Your task to perform on an android device: Search for sushi restaurants on Maps Image 0: 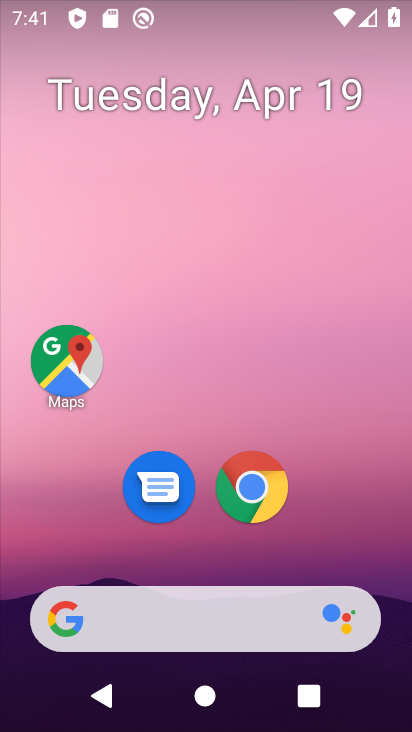
Step 0: click (42, 374)
Your task to perform on an android device: Search for sushi restaurants on Maps Image 1: 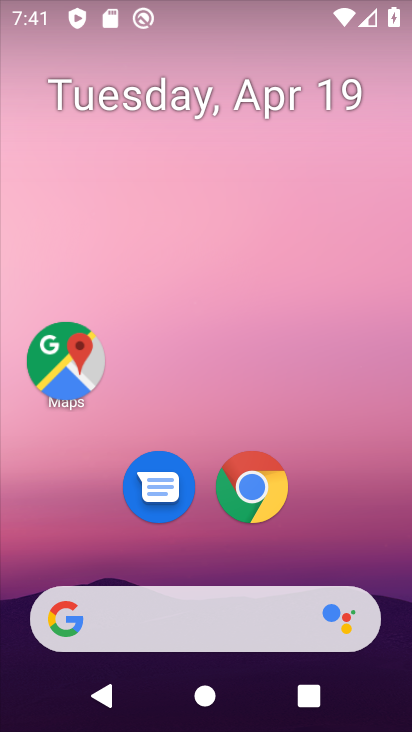
Step 1: click (52, 379)
Your task to perform on an android device: Search for sushi restaurants on Maps Image 2: 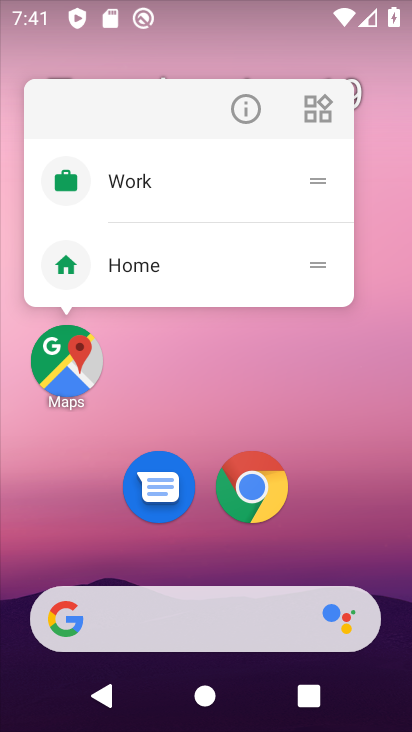
Step 2: click (56, 360)
Your task to perform on an android device: Search for sushi restaurants on Maps Image 3: 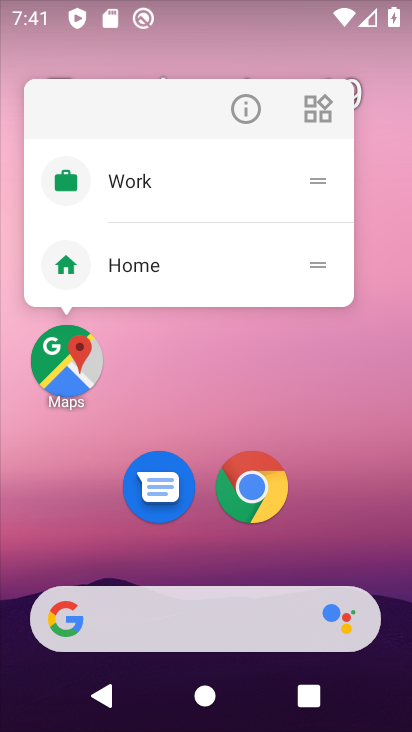
Step 3: click (60, 356)
Your task to perform on an android device: Search for sushi restaurants on Maps Image 4: 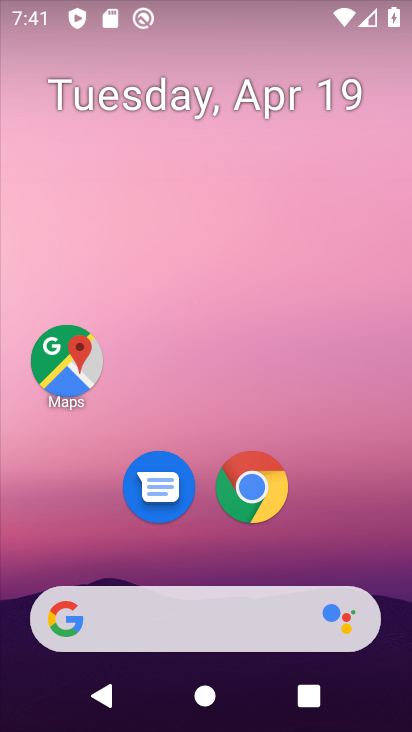
Step 4: drag from (263, 502) to (180, 9)
Your task to perform on an android device: Search for sushi restaurants on Maps Image 5: 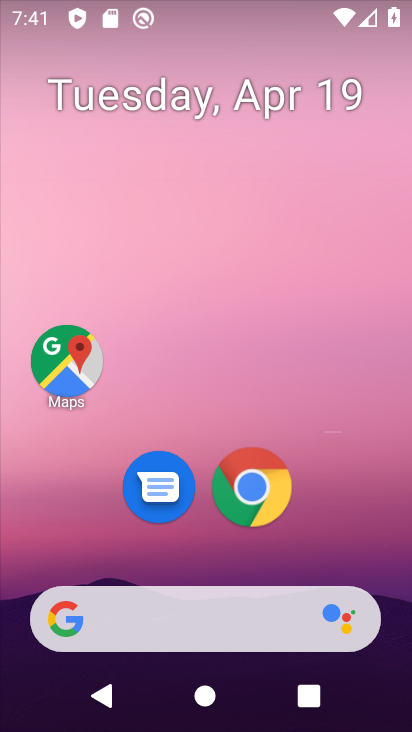
Step 5: click (150, 79)
Your task to perform on an android device: Search for sushi restaurants on Maps Image 6: 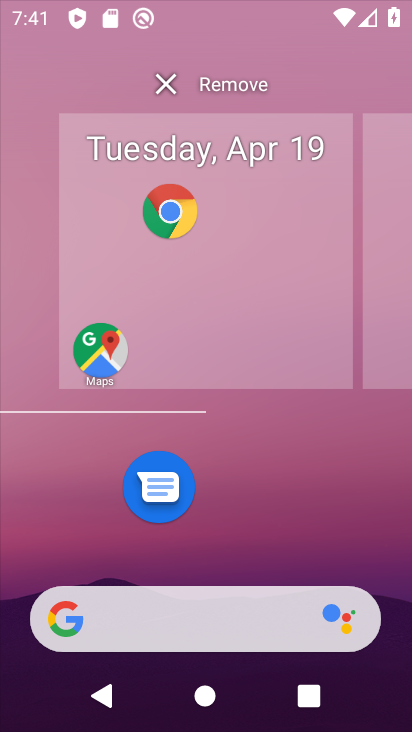
Step 6: drag from (230, 302) to (173, 32)
Your task to perform on an android device: Search for sushi restaurants on Maps Image 7: 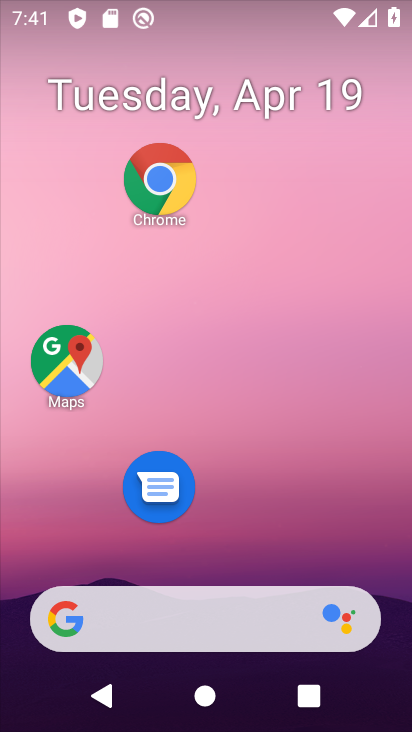
Step 7: drag from (233, 417) to (175, 45)
Your task to perform on an android device: Search for sushi restaurants on Maps Image 8: 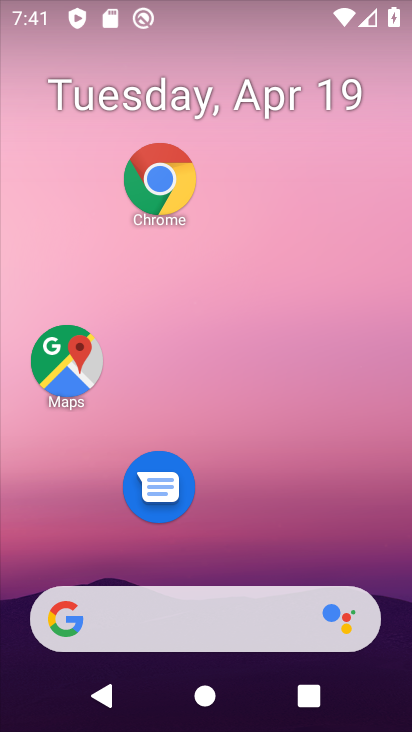
Step 8: click (89, 39)
Your task to perform on an android device: Search for sushi restaurants on Maps Image 9: 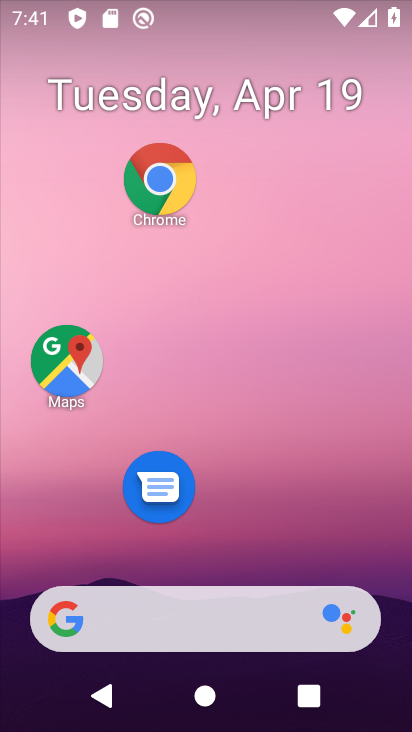
Step 9: drag from (208, 362) to (179, 220)
Your task to perform on an android device: Search for sushi restaurants on Maps Image 10: 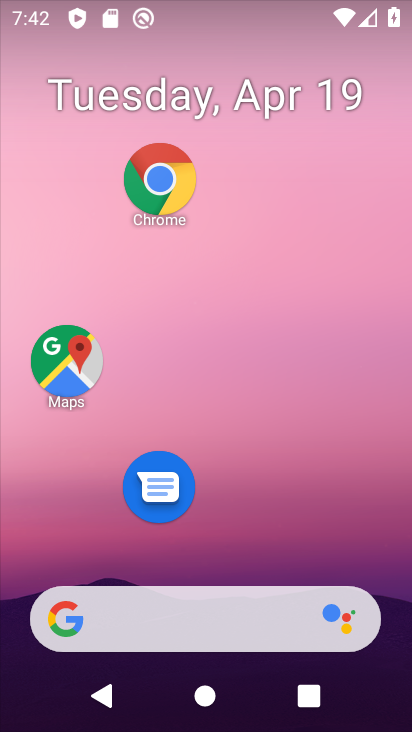
Step 10: click (201, 1)
Your task to perform on an android device: Search for sushi restaurants on Maps Image 11: 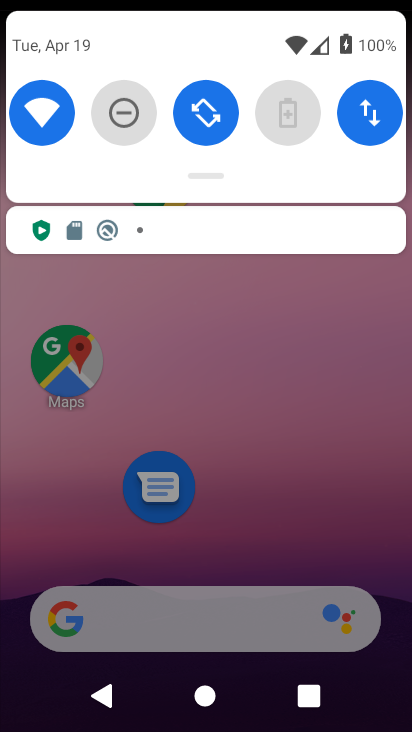
Step 11: drag from (321, 545) to (212, 226)
Your task to perform on an android device: Search for sushi restaurants on Maps Image 12: 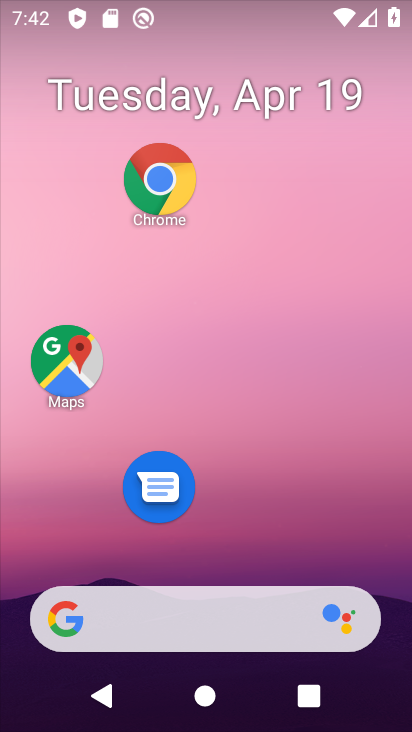
Step 12: drag from (248, 473) to (111, 37)
Your task to perform on an android device: Search for sushi restaurants on Maps Image 13: 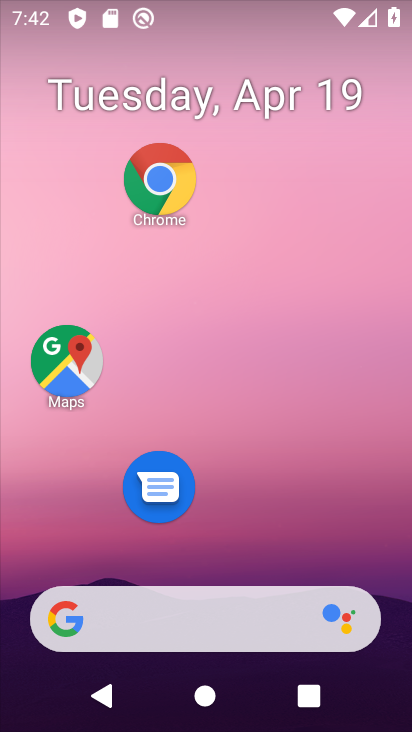
Step 13: drag from (180, 187) to (218, 203)
Your task to perform on an android device: Search for sushi restaurants on Maps Image 14: 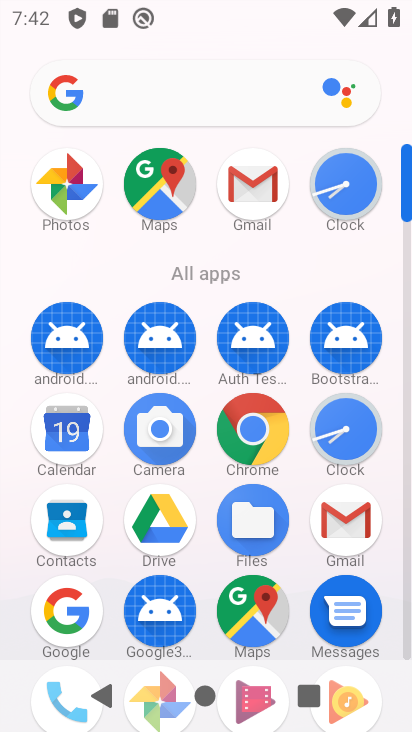
Step 14: click (167, 183)
Your task to perform on an android device: Search for sushi restaurants on Maps Image 15: 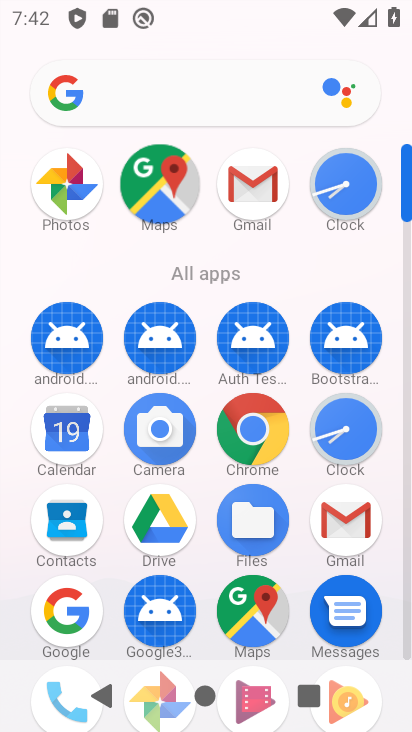
Step 15: click (167, 183)
Your task to perform on an android device: Search for sushi restaurants on Maps Image 16: 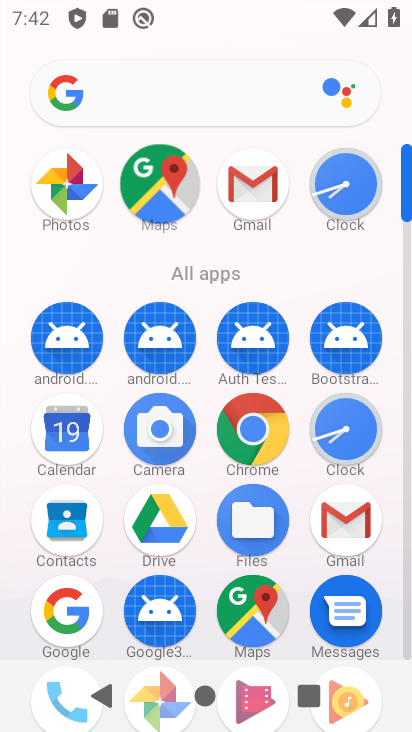
Step 16: click (167, 183)
Your task to perform on an android device: Search for sushi restaurants on Maps Image 17: 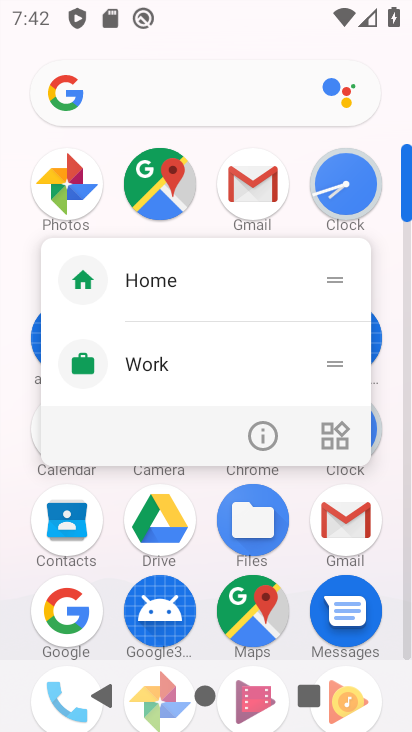
Step 17: click (167, 183)
Your task to perform on an android device: Search for sushi restaurants on Maps Image 18: 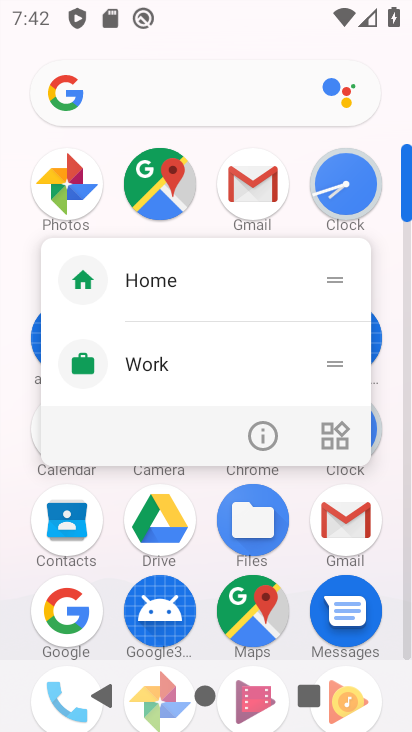
Step 18: click (167, 183)
Your task to perform on an android device: Search for sushi restaurants on Maps Image 19: 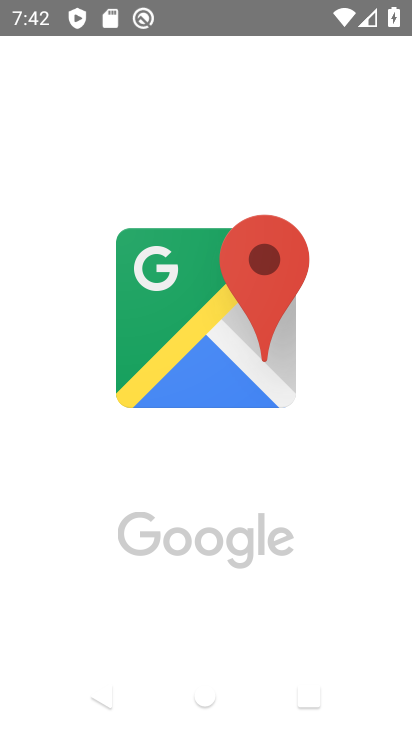
Step 19: click (166, 182)
Your task to perform on an android device: Search for sushi restaurants on Maps Image 20: 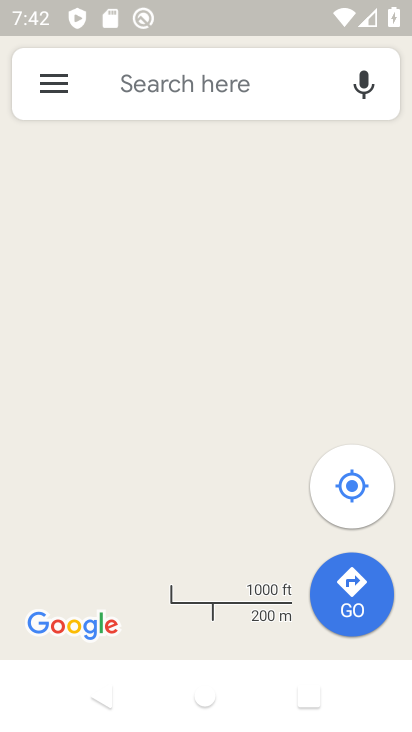
Step 20: click (138, 87)
Your task to perform on an android device: Search for sushi restaurants on Maps Image 21: 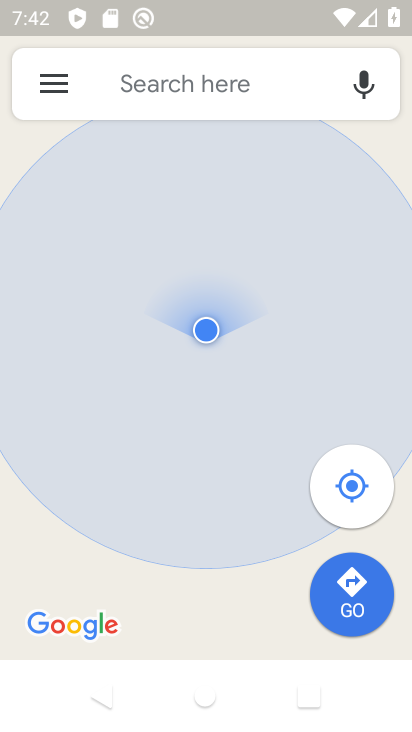
Step 21: click (126, 75)
Your task to perform on an android device: Search for sushi restaurants on Maps Image 22: 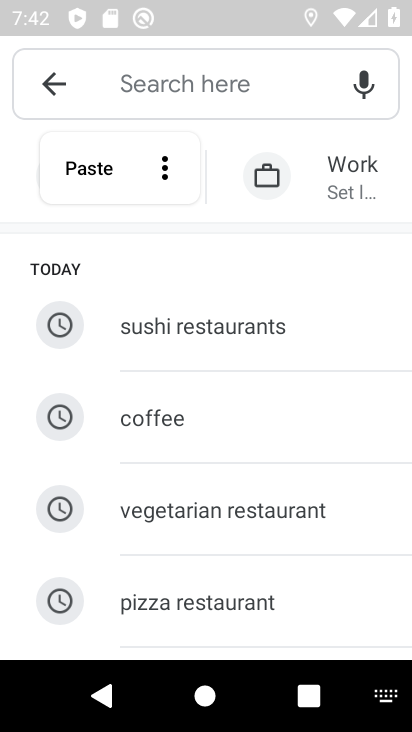
Step 22: type "sushi retaurants"
Your task to perform on an android device: Search for sushi restaurants on Maps Image 23: 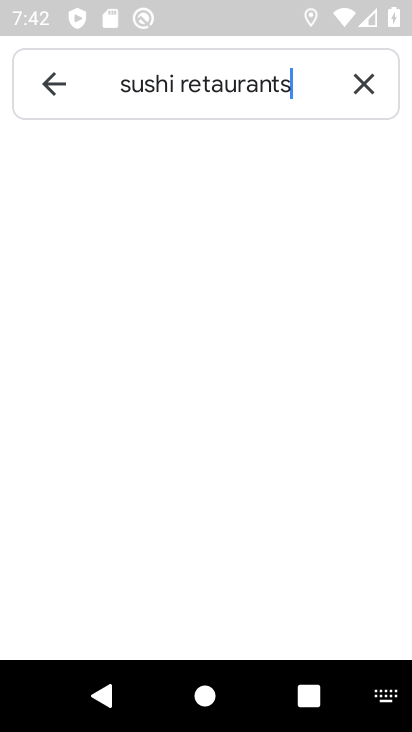
Step 23: click (208, 326)
Your task to perform on an android device: Search for sushi restaurants on Maps Image 24: 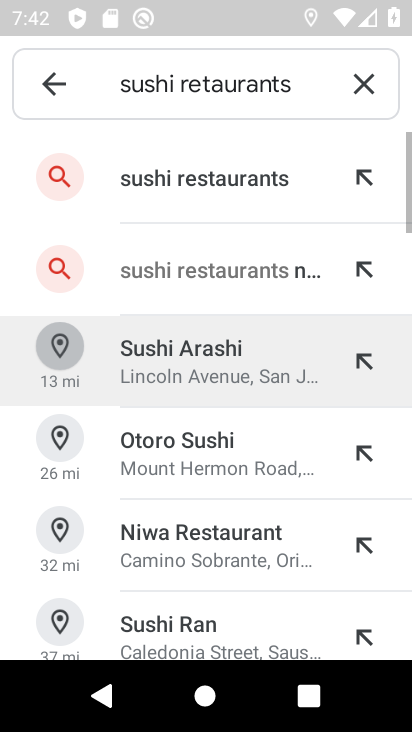
Step 24: click (232, 191)
Your task to perform on an android device: Search for sushi restaurants on Maps Image 25: 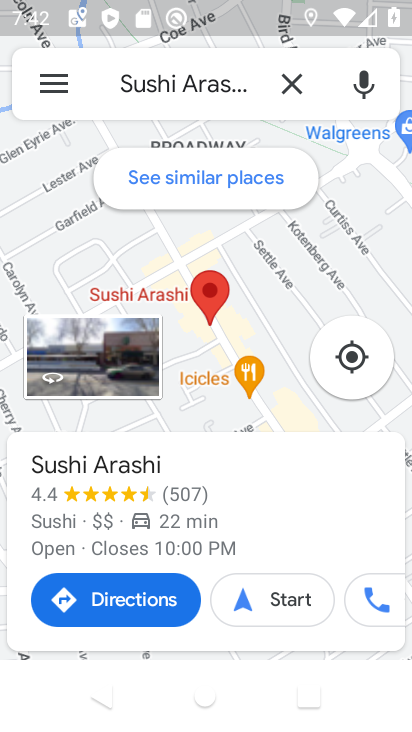
Step 25: task complete